Your task to perform on an android device: open a bookmark in the chrome app Image 0: 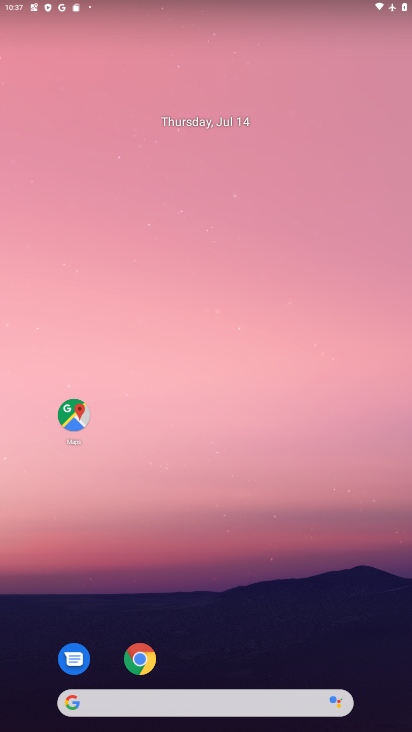
Step 0: drag from (300, 635) to (280, 228)
Your task to perform on an android device: open a bookmark in the chrome app Image 1: 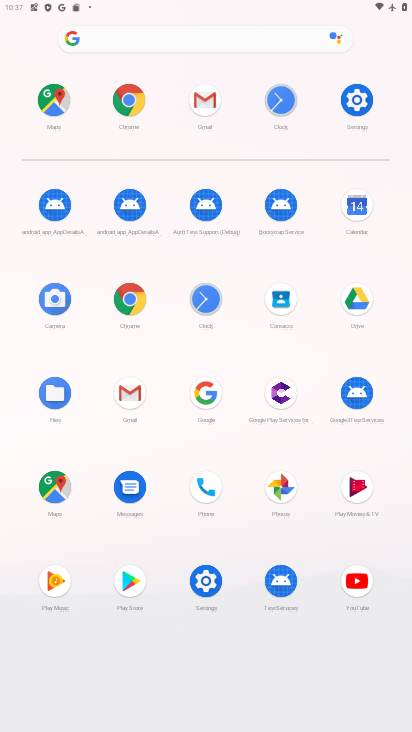
Step 1: click (126, 297)
Your task to perform on an android device: open a bookmark in the chrome app Image 2: 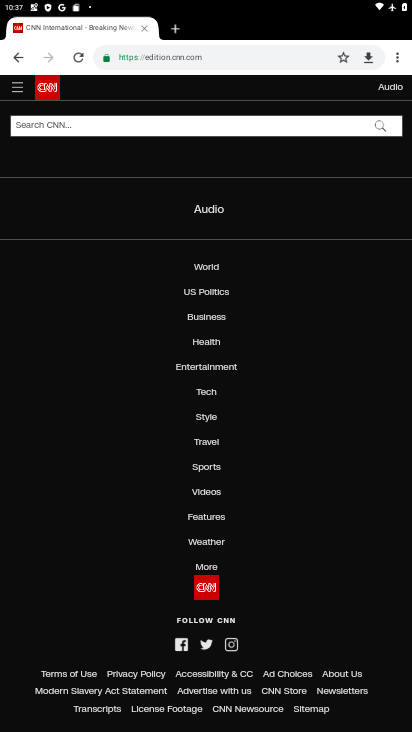
Step 2: drag from (398, 56) to (293, 120)
Your task to perform on an android device: open a bookmark in the chrome app Image 3: 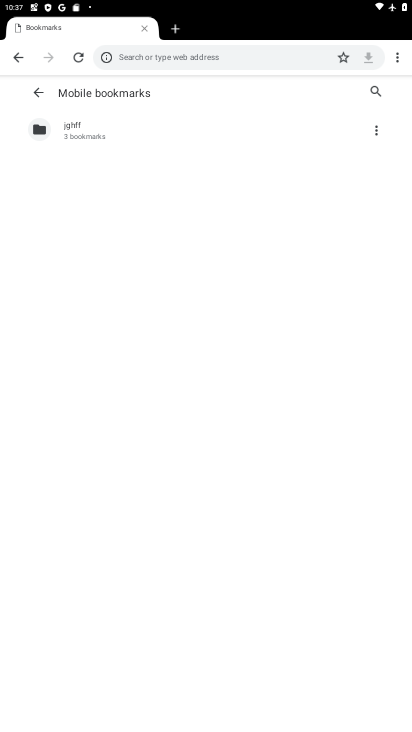
Step 3: click (109, 132)
Your task to perform on an android device: open a bookmark in the chrome app Image 4: 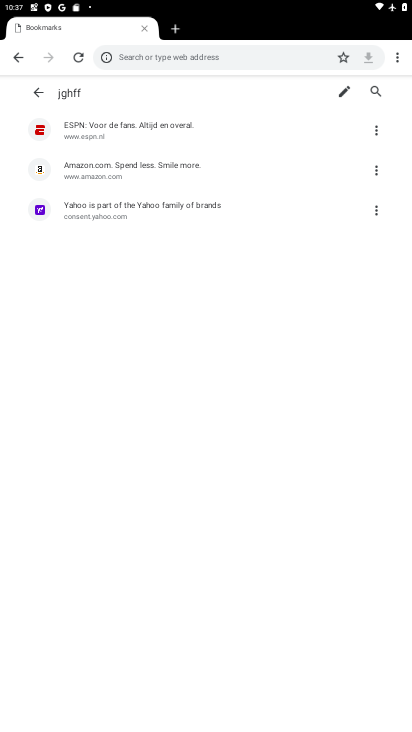
Step 4: click (107, 215)
Your task to perform on an android device: open a bookmark in the chrome app Image 5: 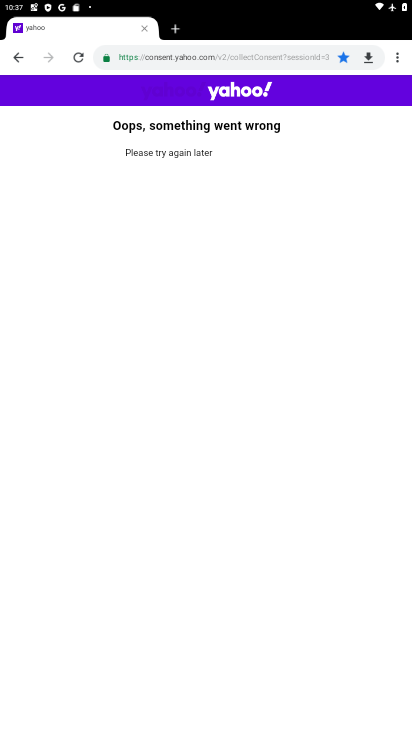
Step 5: task complete